Your task to perform on an android device: Go to CNN.com Image 0: 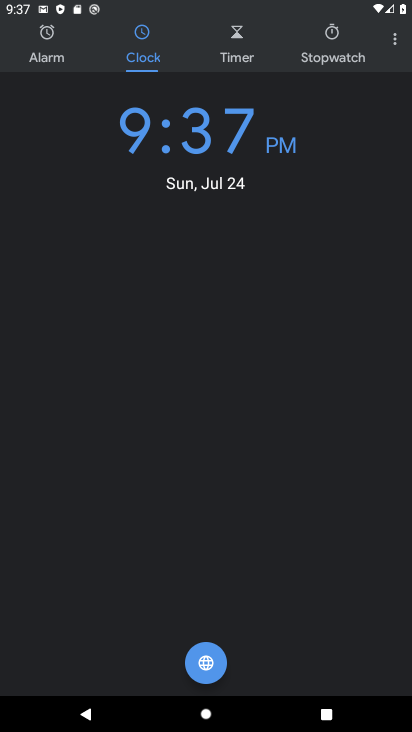
Step 0: press home button
Your task to perform on an android device: Go to CNN.com Image 1: 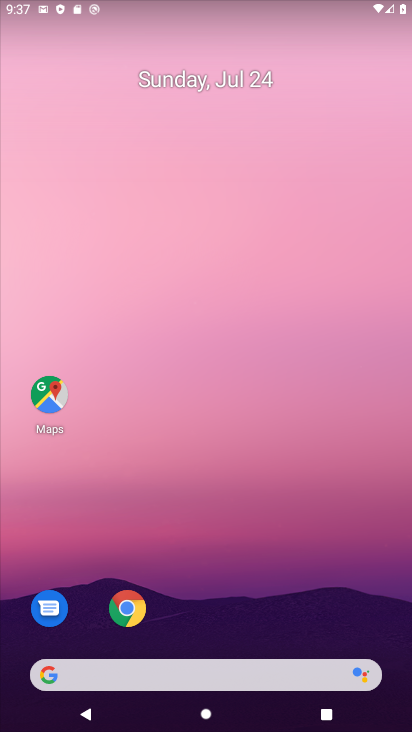
Step 1: click (122, 605)
Your task to perform on an android device: Go to CNN.com Image 2: 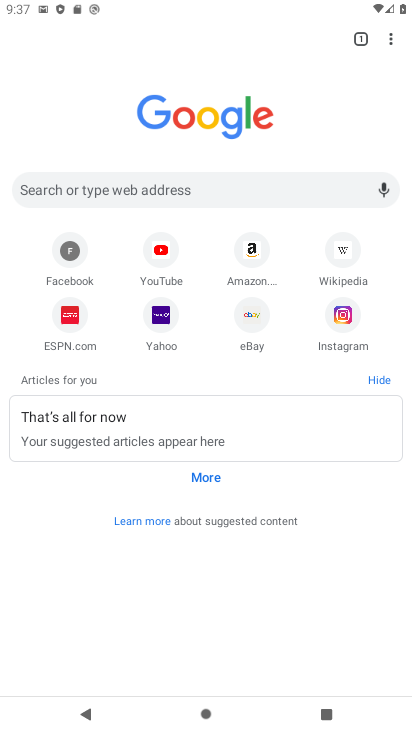
Step 2: click (85, 183)
Your task to perform on an android device: Go to CNN.com Image 3: 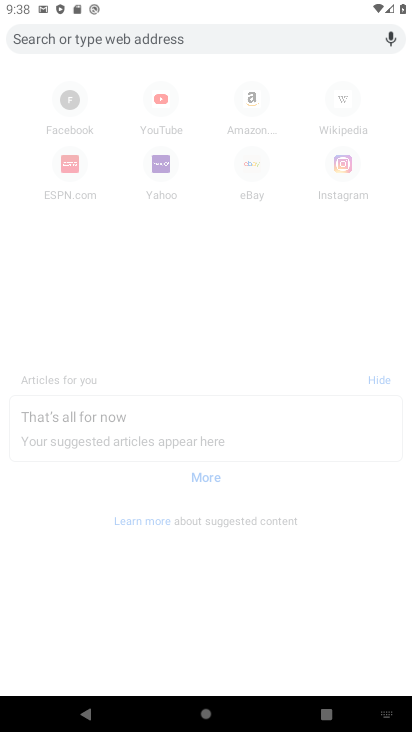
Step 3: click (225, 458)
Your task to perform on an android device: Go to CNN.com Image 4: 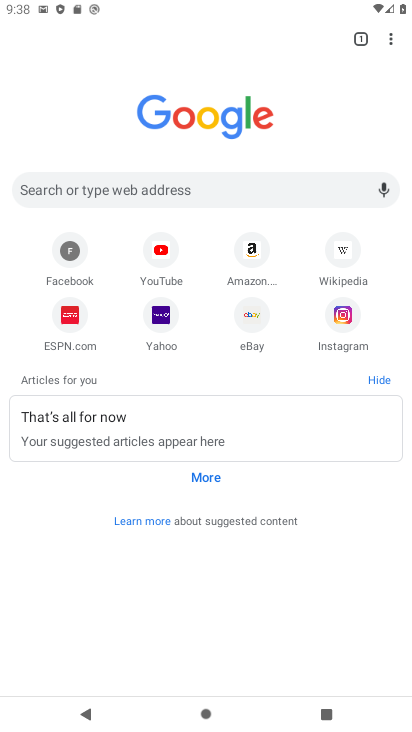
Step 4: click (152, 185)
Your task to perform on an android device: Go to CNN.com Image 5: 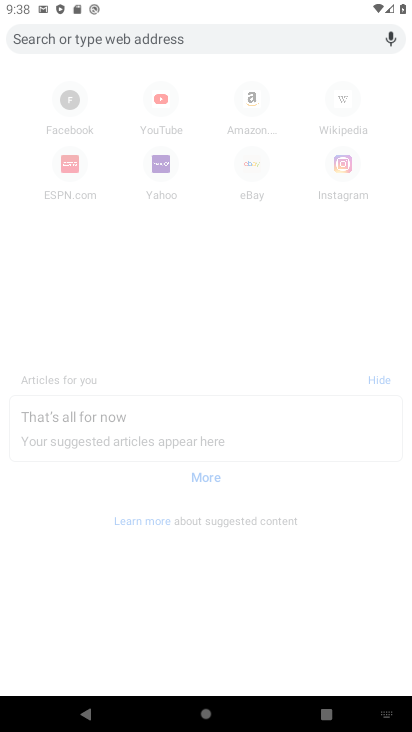
Step 5: type "cnn.com"
Your task to perform on an android device: Go to CNN.com Image 6: 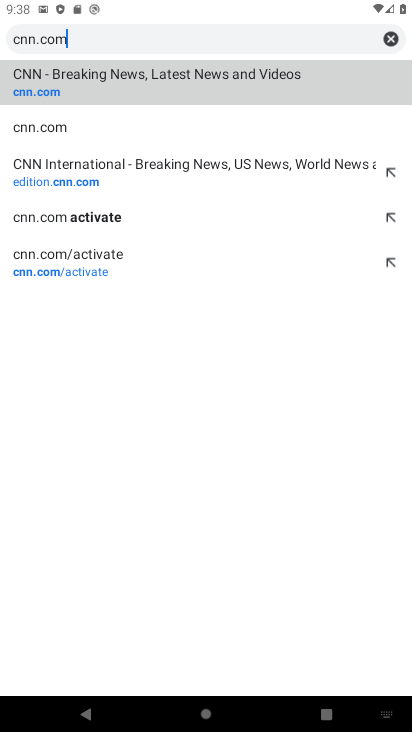
Step 6: click (81, 84)
Your task to perform on an android device: Go to CNN.com Image 7: 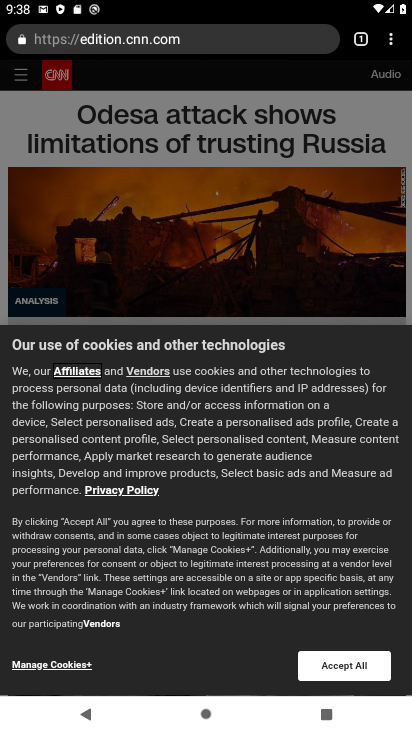
Step 7: click (338, 661)
Your task to perform on an android device: Go to CNN.com Image 8: 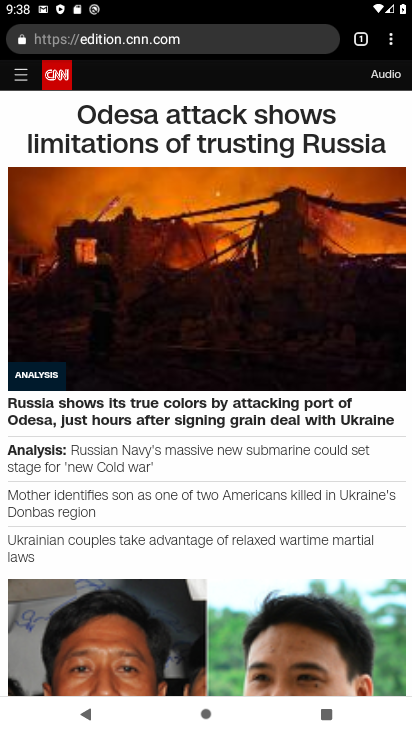
Step 8: task complete